Your task to perform on an android device: Open Chrome and go to settings Image 0: 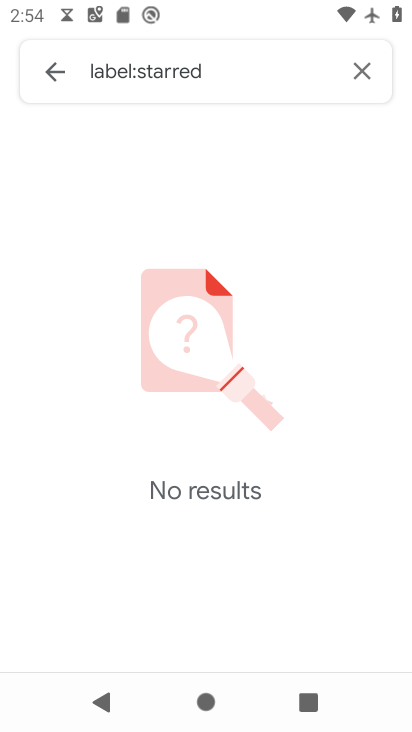
Step 0: press home button
Your task to perform on an android device: Open Chrome and go to settings Image 1: 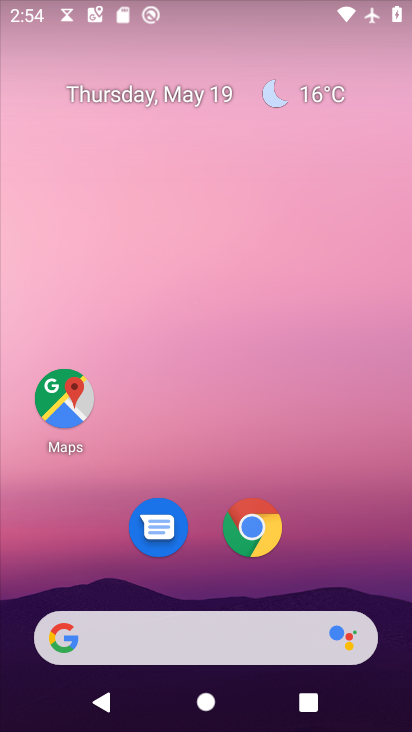
Step 1: click (247, 542)
Your task to perform on an android device: Open Chrome and go to settings Image 2: 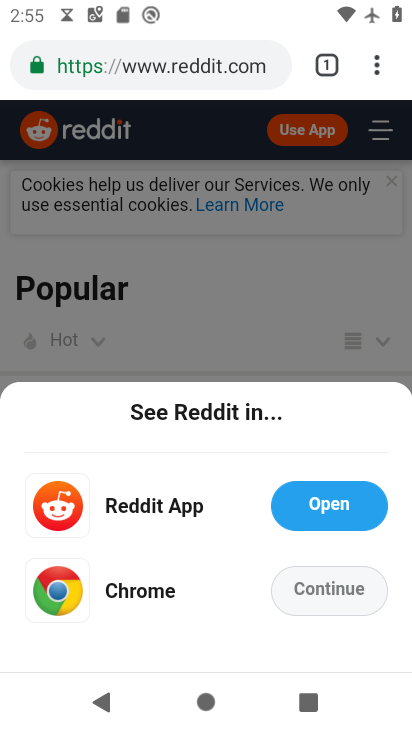
Step 2: click (379, 68)
Your task to perform on an android device: Open Chrome and go to settings Image 3: 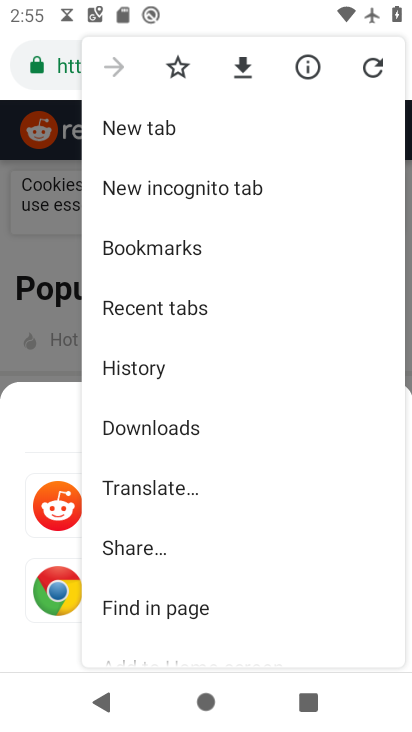
Step 3: drag from (219, 593) to (189, 139)
Your task to perform on an android device: Open Chrome and go to settings Image 4: 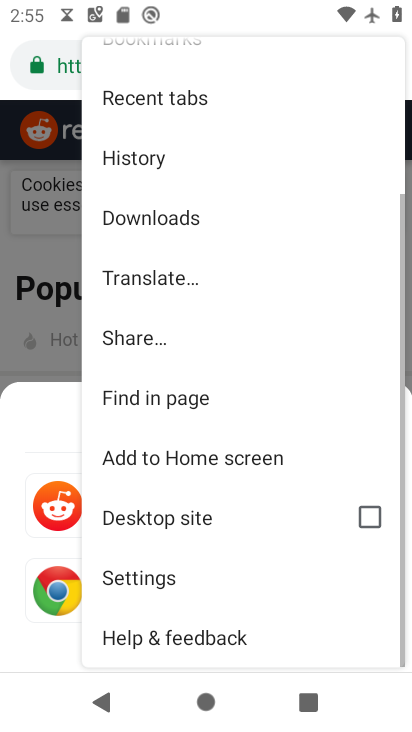
Step 4: click (214, 574)
Your task to perform on an android device: Open Chrome and go to settings Image 5: 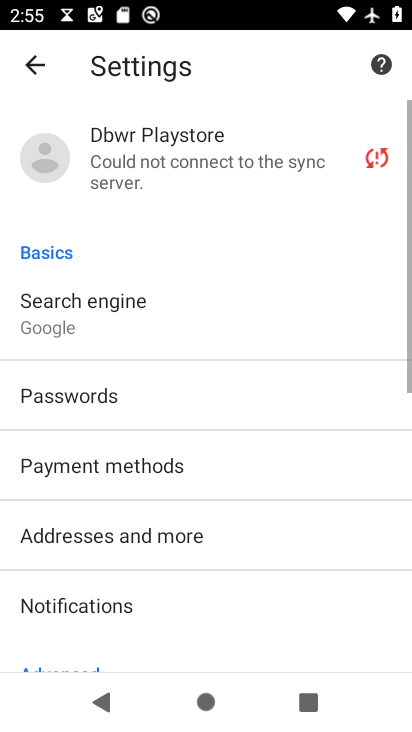
Step 5: task complete